Your task to perform on an android device: turn on improve location accuracy Image 0: 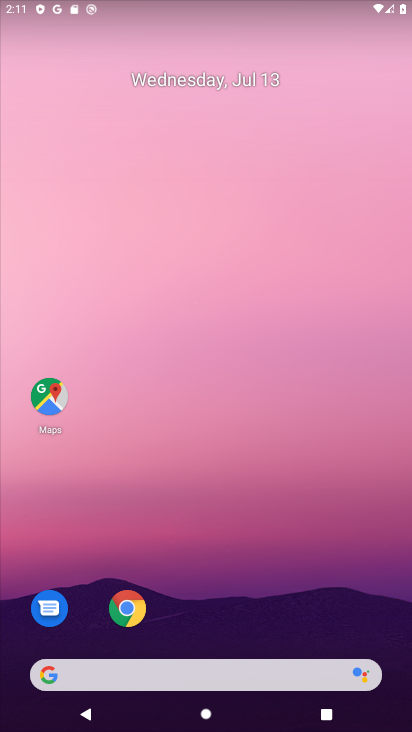
Step 0: drag from (193, 620) to (156, 246)
Your task to perform on an android device: turn on improve location accuracy Image 1: 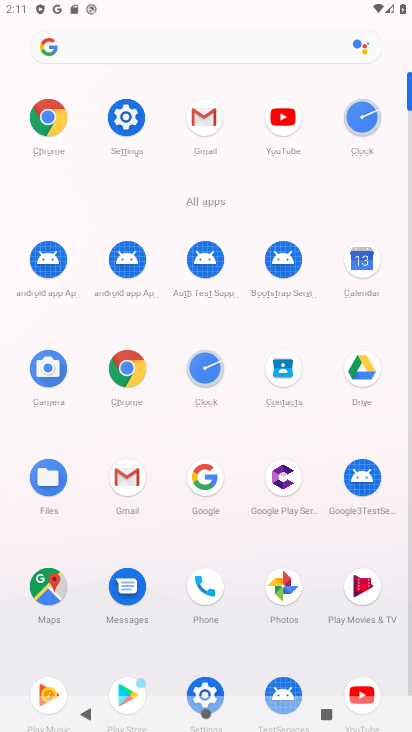
Step 1: click (123, 100)
Your task to perform on an android device: turn on improve location accuracy Image 2: 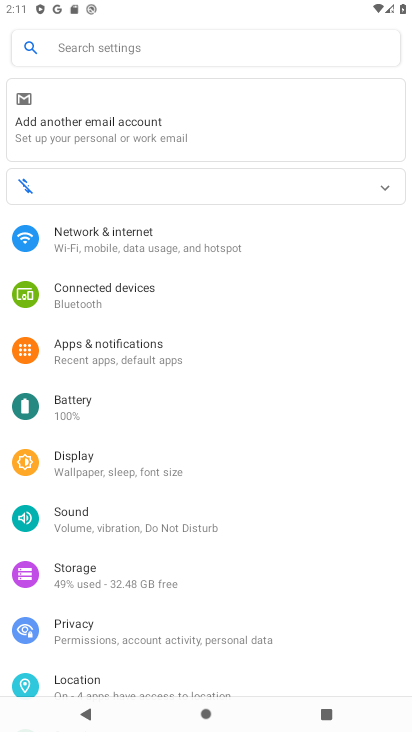
Step 2: drag from (91, 527) to (141, 54)
Your task to perform on an android device: turn on improve location accuracy Image 3: 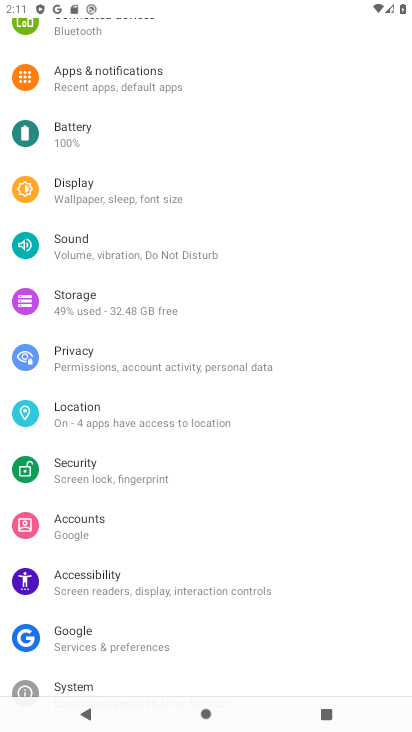
Step 3: click (112, 411)
Your task to perform on an android device: turn on improve location accuracy Image 4: 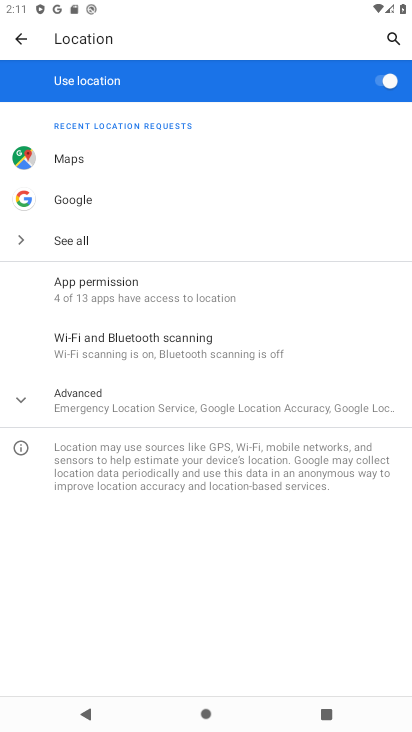
Step 4: click (112, 411)
Your task to perform on an android device: turn on improve location accuracy Image 5: 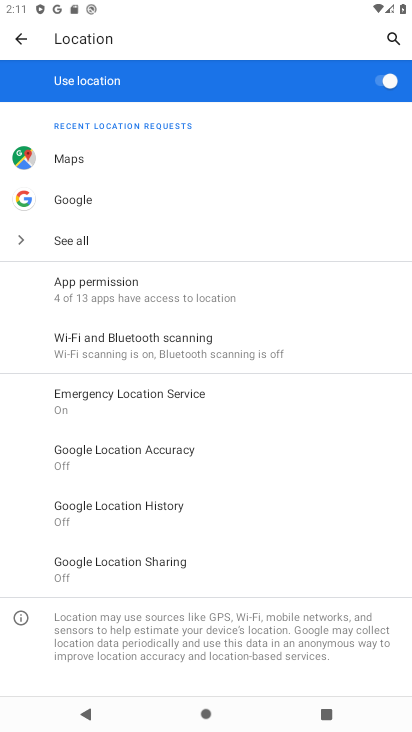
Step 5: click (149, 472)
Your task to perform on an android device: turn on improve location accuracy Image 6: 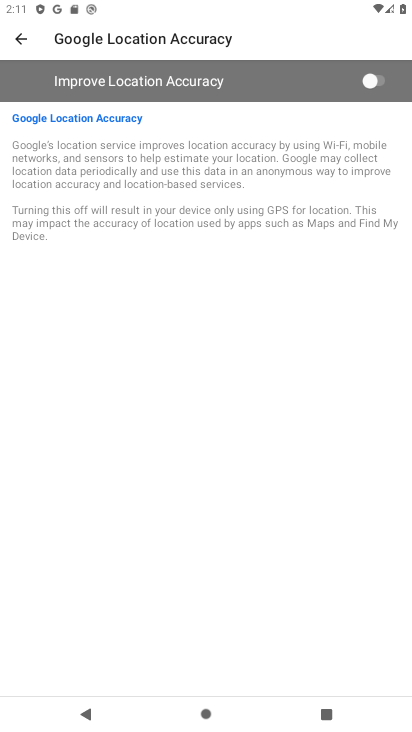
Step 6: click (372, 87)
Your task to perform on an android device: turn on improve location accuracy Image 7: 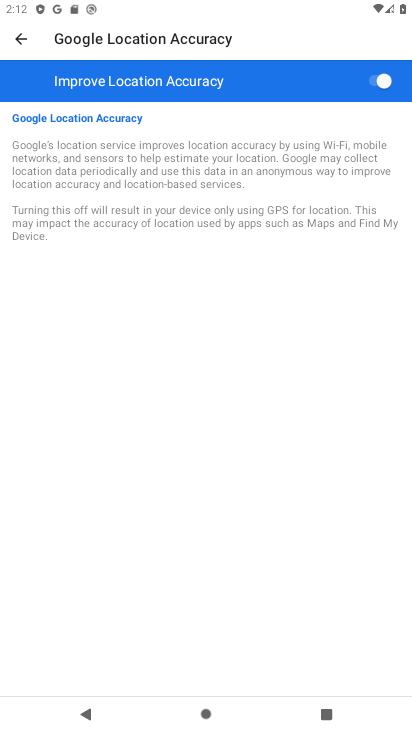
Step 7: task complete